Your task to perform on an android device: delete browsing data in the chrome app Image 0: 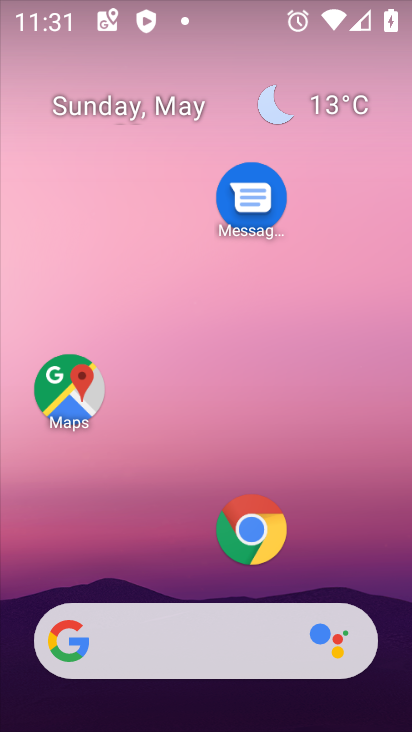
Step 0: click (270, 536)
Your task to perform on an android device: delete browsing data in the chrome app Image 1: 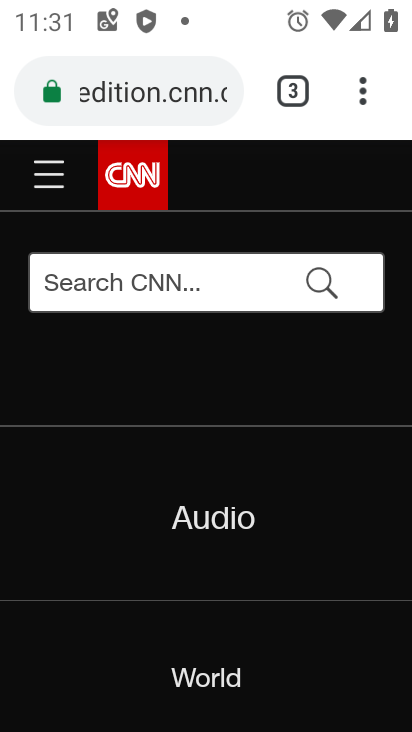
Step 1: click (364, 106)
Your task to perform on an android device: delete browsing data in the chrome app Image 2: 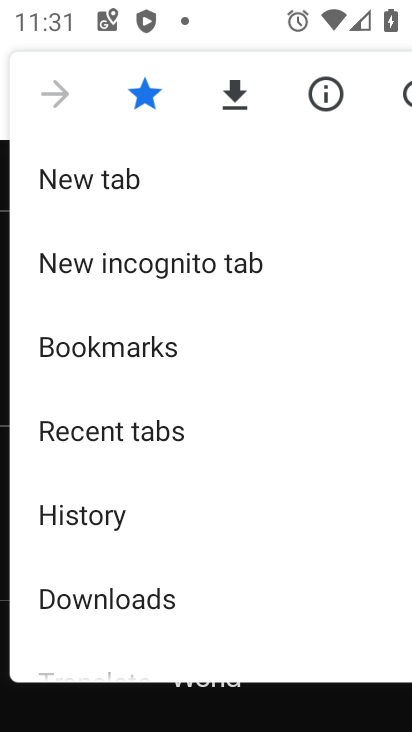
Step 2: click (95, 515)
Your task to perform on an android device: delete browsing data in the chrome app Image 3: 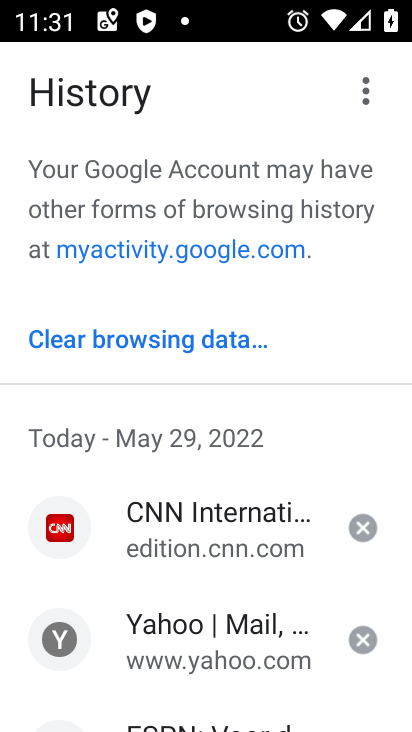
Step 3: click (184, 349)
Your task to perform on an android device: delete browsing data in the chrome app Image 4: 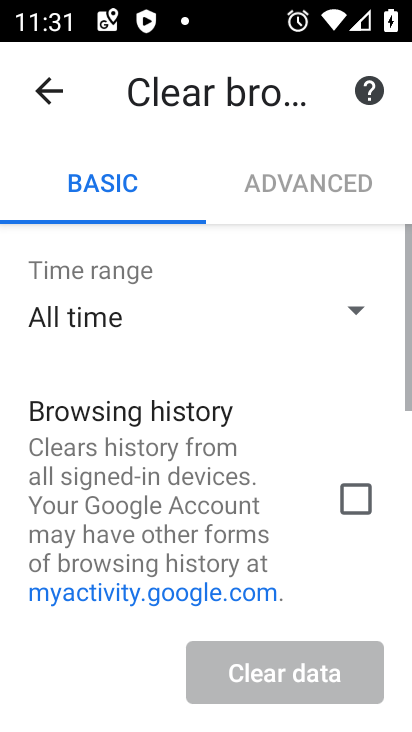
Step 4: drag from (231, 506) to (259, 318)
Your task to perform on an android device: delete browsing data in the chrome app Image 5: 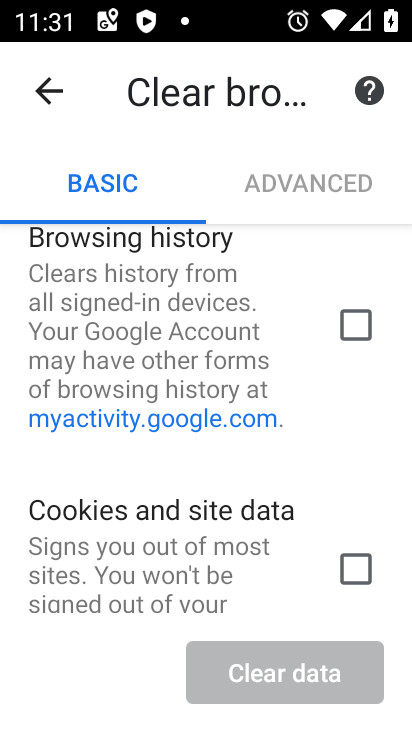
Step 5: click (341, 325)
Your task to perform on an android device: delete browsing data in the chrome app Image 6: 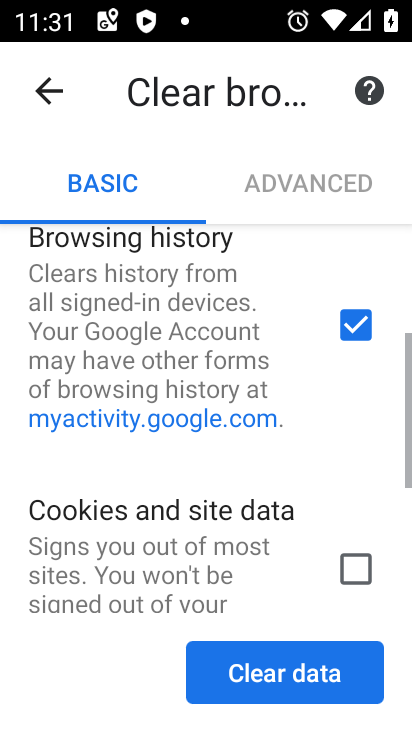
Step 6: drag from (317, 513) to (360, 244)
Your task to perform on an android device: delete browsing data in the chrome app Image 7: 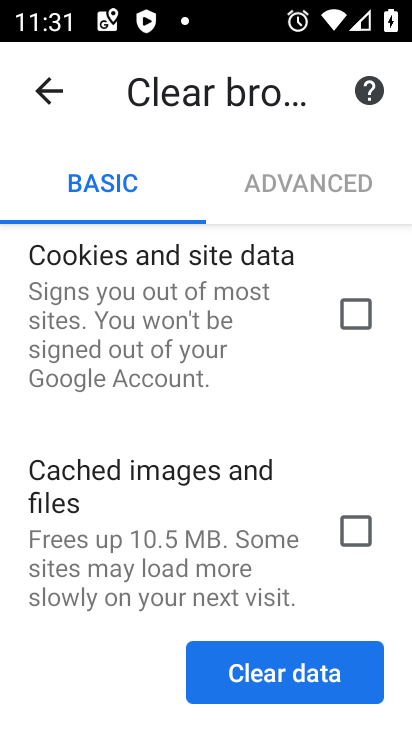
Step 7: click (351, 529)
Your task to perform on an android device: delete browsing data in the chrome app Image 8: 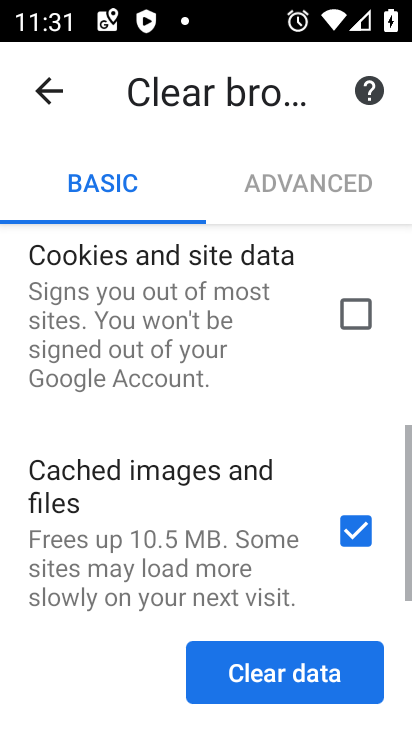
Step 8: click (360, 310)
Your task to perform on an android device: delete browsing data in the chrome app Image 9: 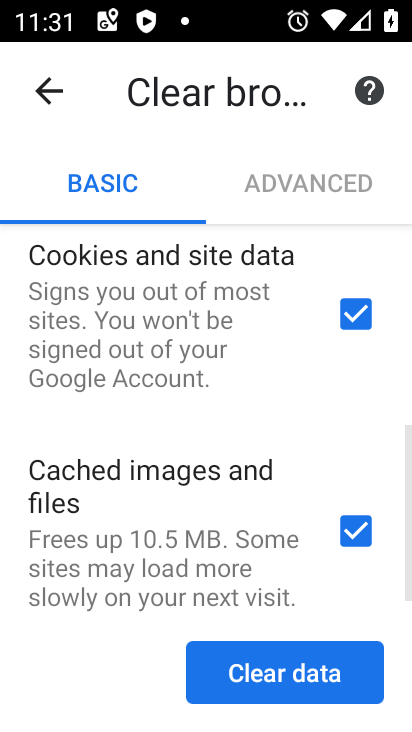
Step 9: click (319, 692)
Your task to perform on an android device: delete browsing data in the chrome app Image 10: 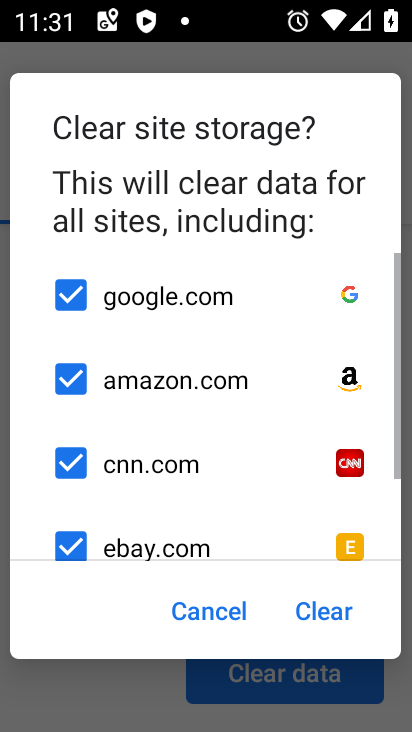
Step 10: click (330, 620)
Your task to perform on an android device: delete browsing data in the chrome app Image 11: 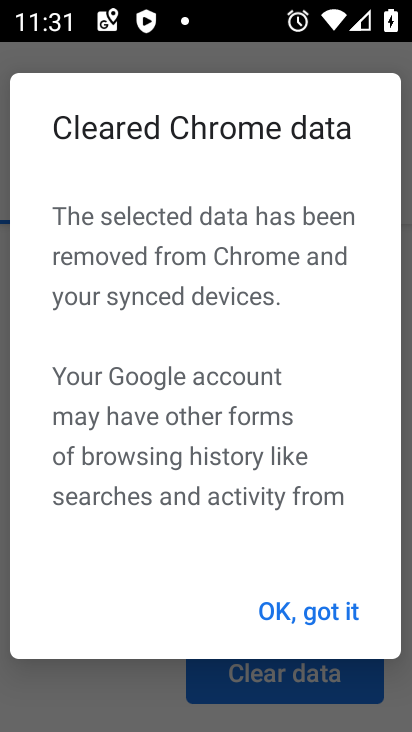
Step 11: click (343, 631)
Your task to perform on an android device: delete browsing data in the chrome app Image 12: 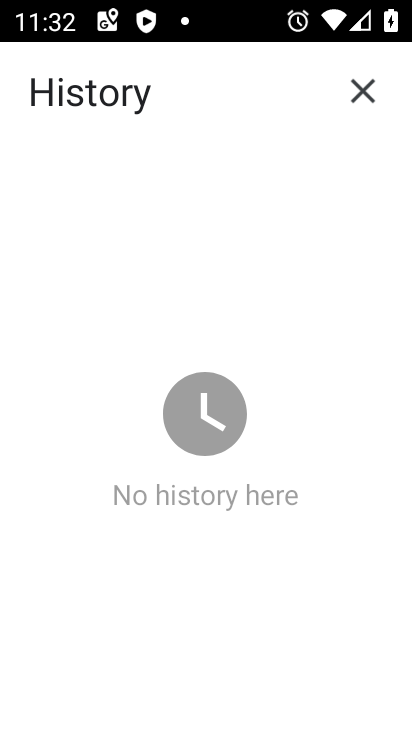
Step 12: task complete